Your task to perform on an android device: turn on airplane mode Image 0: 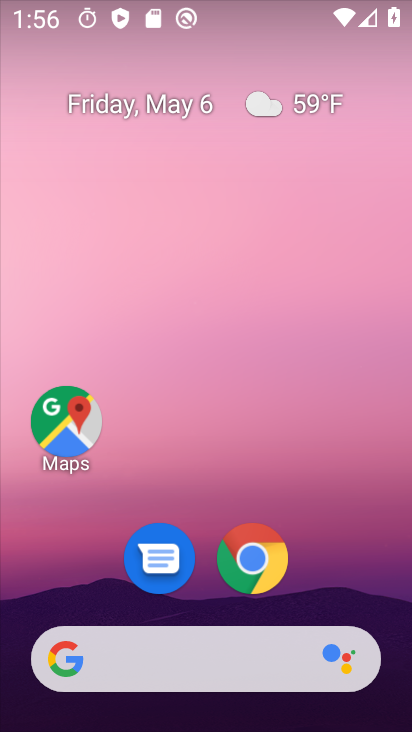
Step 0: drag from (206, 721) to (188, 178)
Your task to perform on an android device: turn on airplane mode Image 1: 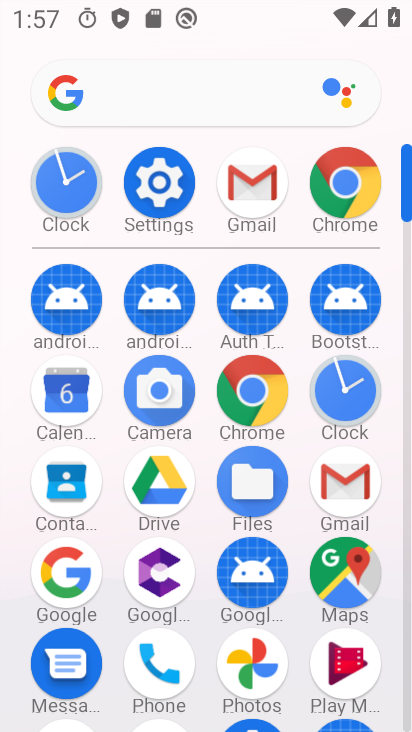
Step 1: click (164, 181)
Your task to perform on an android device: turn on airplane mode Image 2: 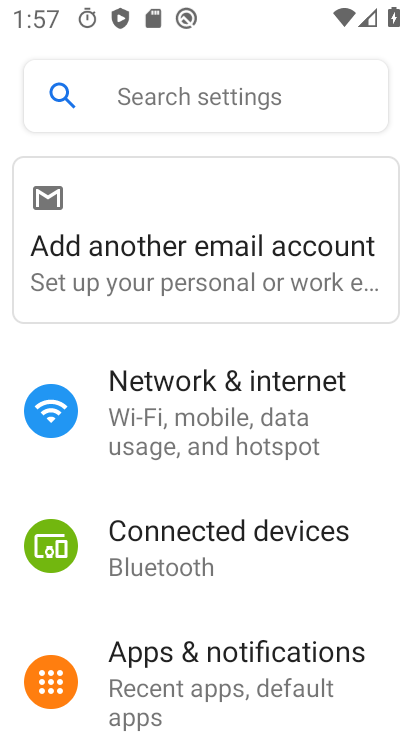
Step 2: click (202, 426)
Your task to perform on an android device: turn on airplane mode Image 3: 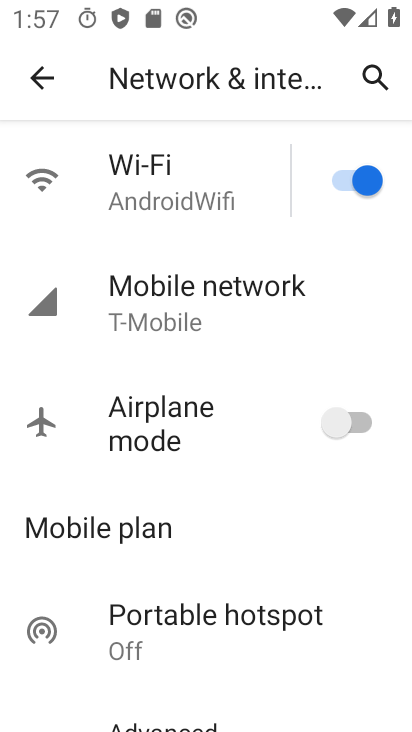
Step 3: click (360, 425)
Your task to perform on an android device: turn on airplane mode Image 4: 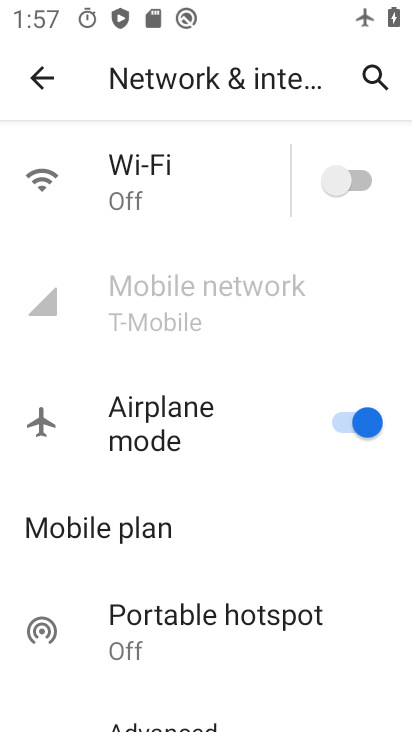
Step 4: task complete